Your task to perform on an android device: Go to Wikipedia Image 0: 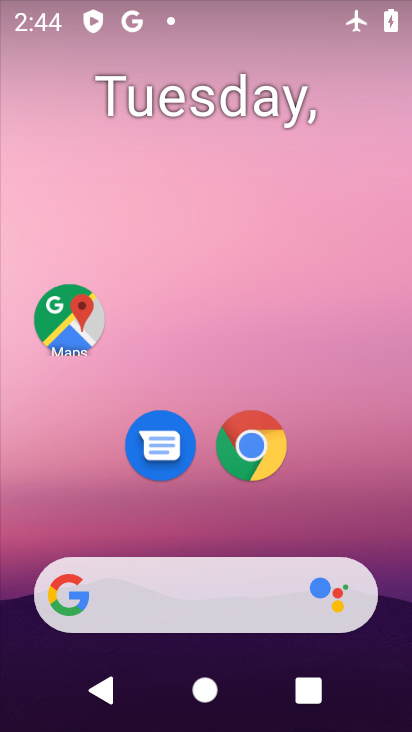
Step 0: click (231, 608)
Your task to perform on an android device: Go to Wikipedia Image 1: 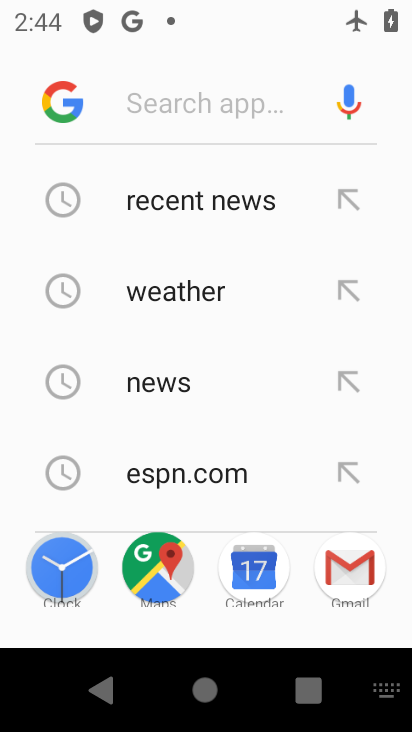
Step 1: type "wikipedia"
Your task to perform on an android device: Go to Wikipedia Image 2: 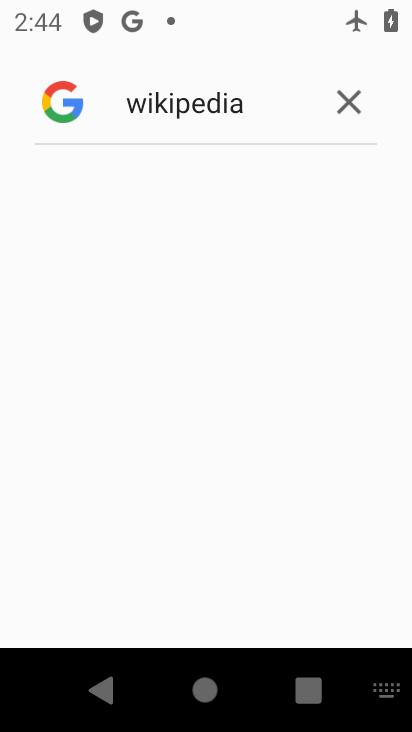
Step 2: task complete